Your task to perform on an android device: find which apps use the phone's location Image 0: 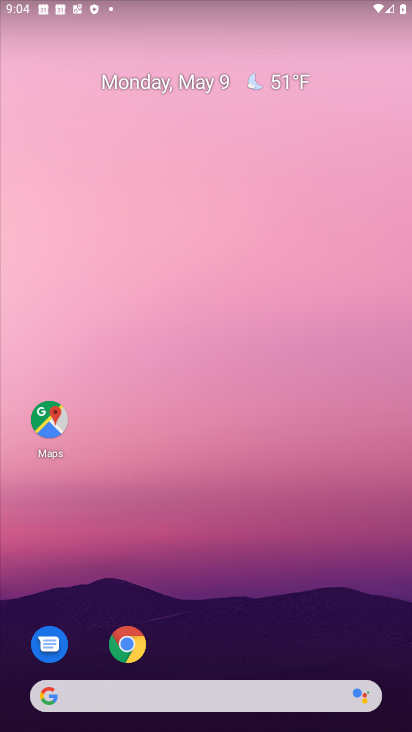
Step 0: drag from (263, 666) to (292, 720)
Your task to perform on an android device: find which apps use the phone's location Image 1: 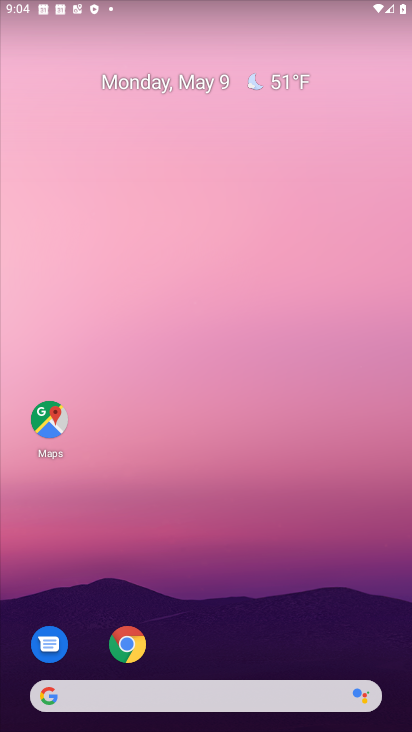
Step 1: drag from (207, 666) to (209, 18)
Your task to perform on an android device: find which apps use the phone's location Image 2: 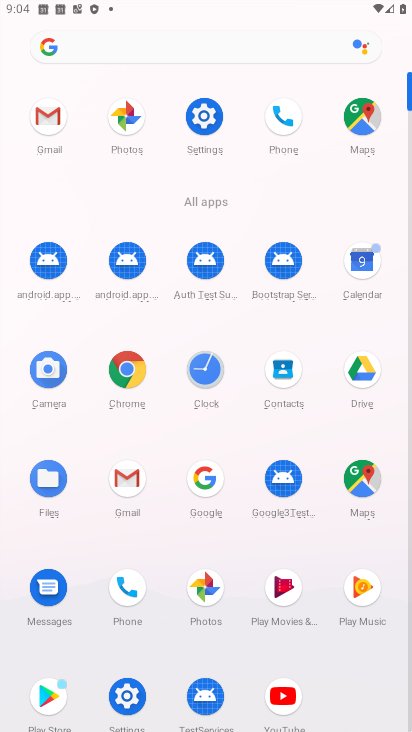
Step 2: click (129, 693)
Your task to perform on an android device: find which apps use the phone's location Image 3: 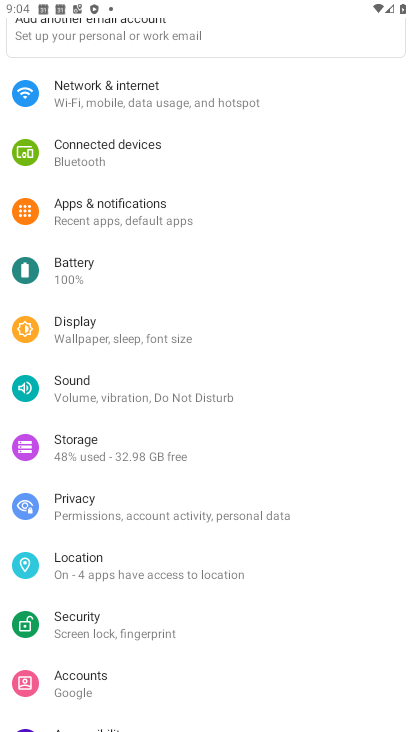
Step 3: click (102, 577)
Your task to perform on an android device: find which apps use the phone's location Image 4: 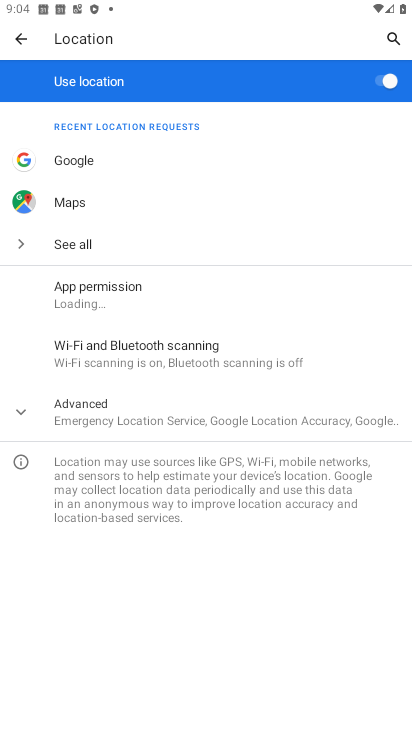
Step 4: click (116, 396)
Your task to perform on an android device: find which apps use the phone's location Image 5: 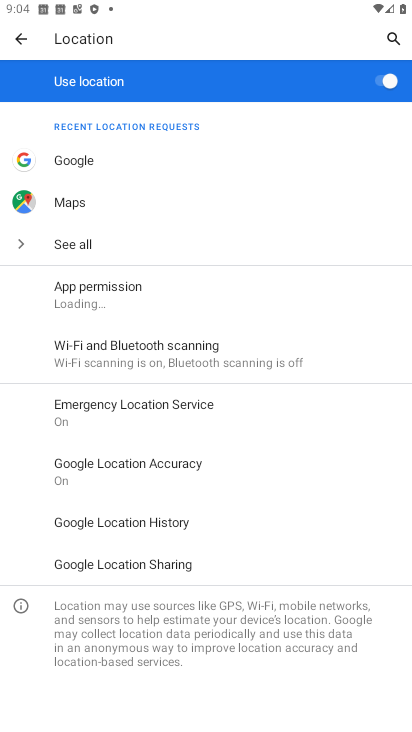
Step 5: click (97, 305)
Your task to perform on an android device: find which apps use the phone's location Image 6: 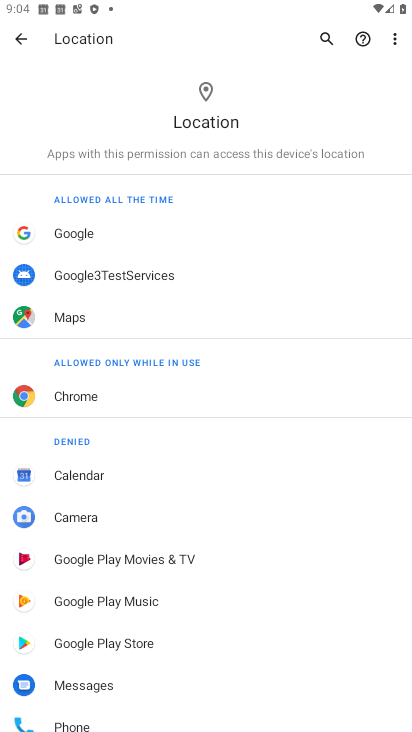
Step 6: task complete